Your task to perform on an android device: Show me the alarms in the clock app Image 0: 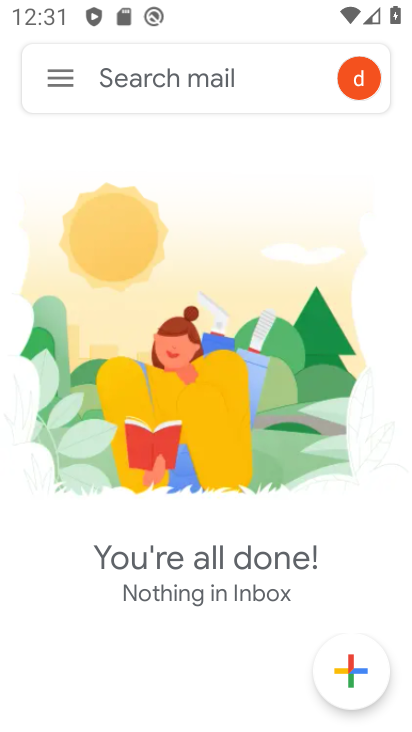
Step 0: press home button
Your task to perform on an android device: Show me the alarms in the clock app Image 1: 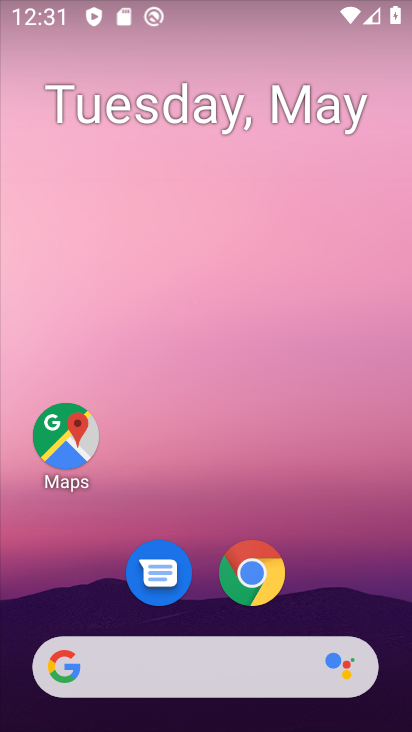
Step 1: drag from (354, 524) to (383, 10)
Your task to perform on an android device: Show me the alarms in the clock app Image 2: 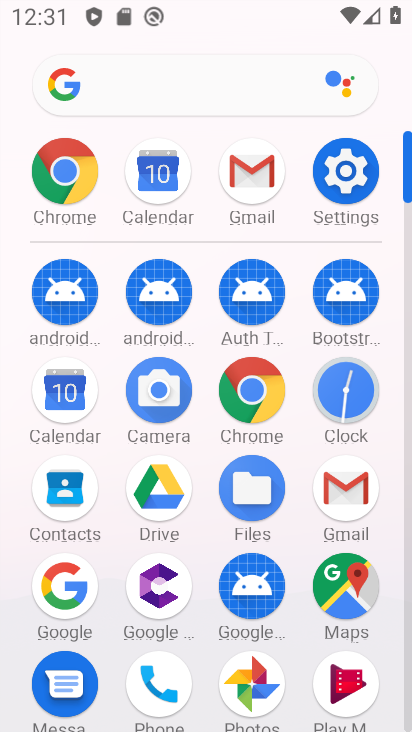
Step 2: click (346, 421)
Your task to perform on an android device: Show me the alarms in the clock app Image 3: 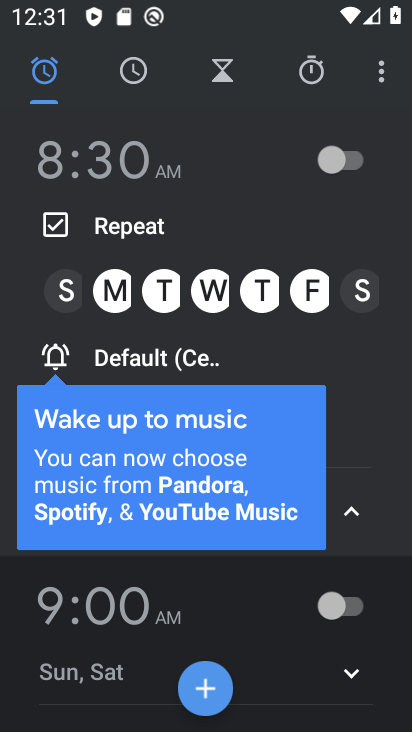
Step 3: task complete